Your task to perform on an android device: Go to eBay Image 0: 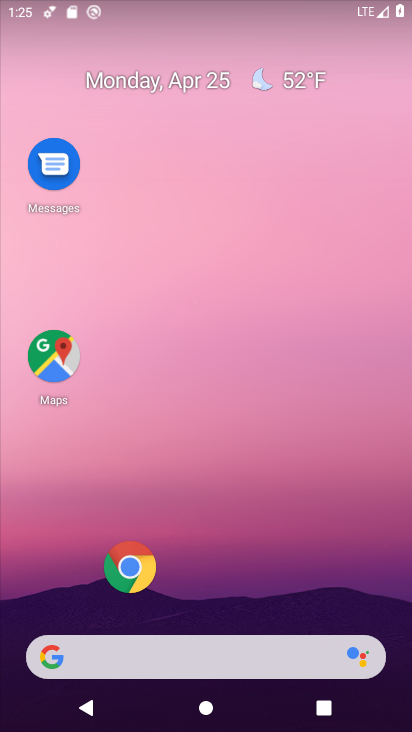
Step 0: drag from (246, 540) to (253, 232)
Your task to perform on an android device: Go to eBay Image 1: 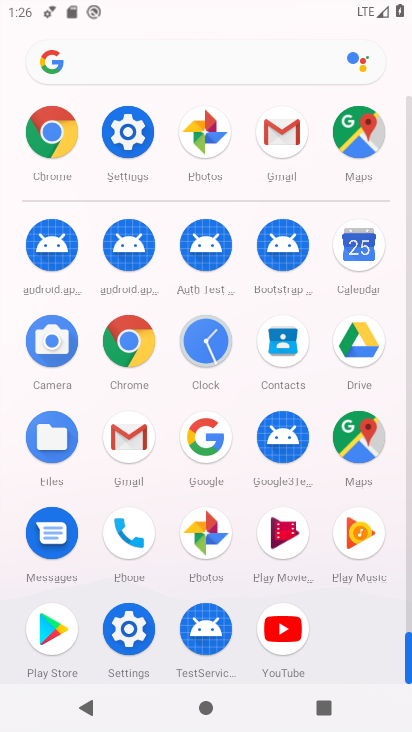
Step 1: click (49, 139)
Your task to perform on an android device: Go to eBay Image 2: 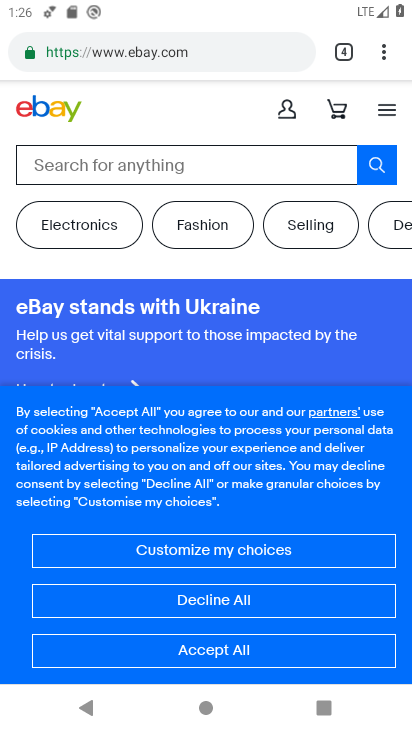
Step 2: task complete